Your task to perform on an android device: turn on the 24-hour format for clock Image 0: 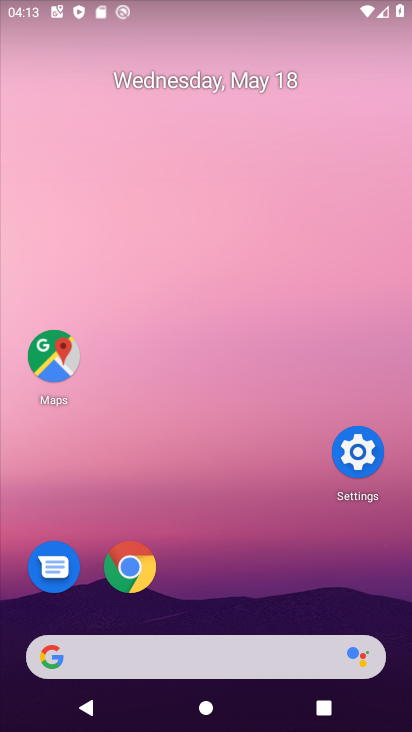
Step 0: drag from (259, 578) to (320, 173)
Your task to perform on an android device: turn on the 24-hour format for clock Image 1: 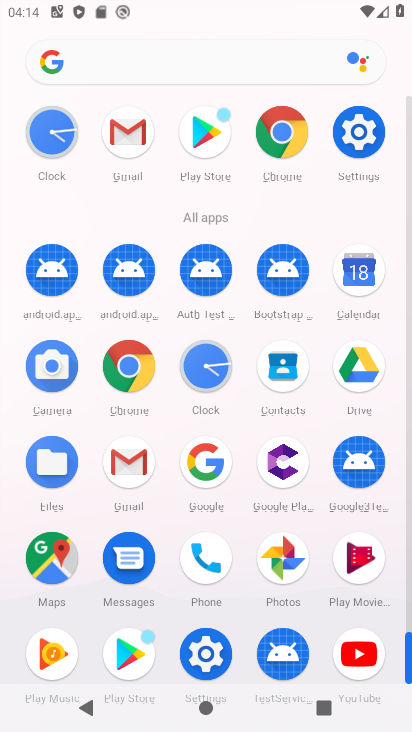
Step 1: click (198, 362)
Your task to perform on an android device: turn on the 24-hour format for clock Image 2: 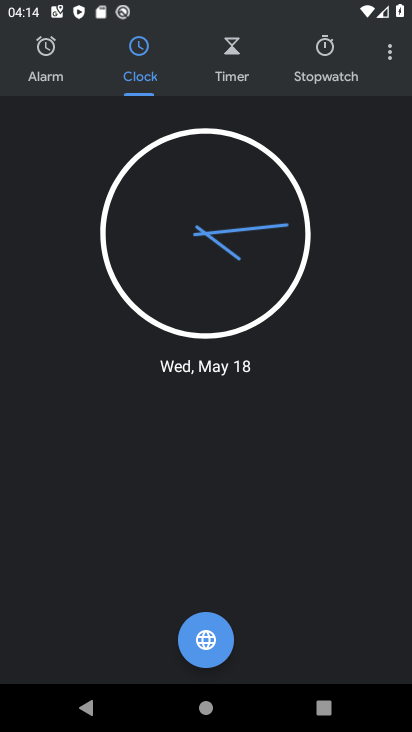
Step 2: click (394, 56)
Your task to perform on an android device: turn on the 24-hour format for clock Image 3: 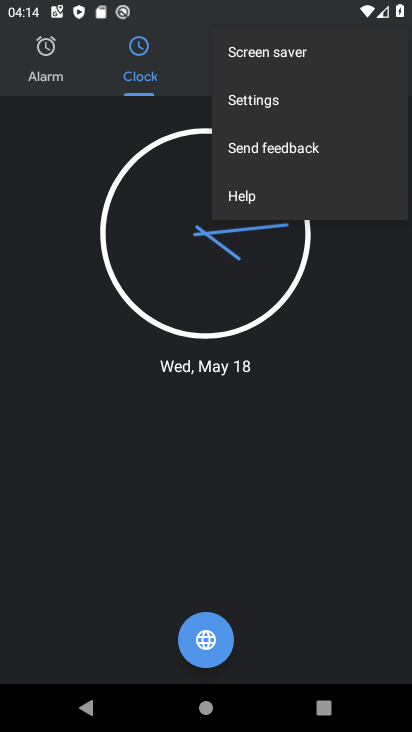
Step 3: click (283, 107)
Your task to perform on an android device: turn on the 24-hour format for clock Image 4: 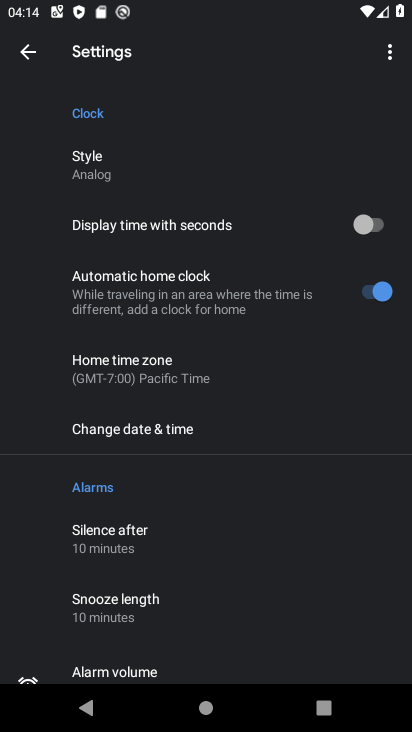
Step 4: click (144, 421)
Your task to perform on an android device: turn on the 24-hour format for clock Image 5: 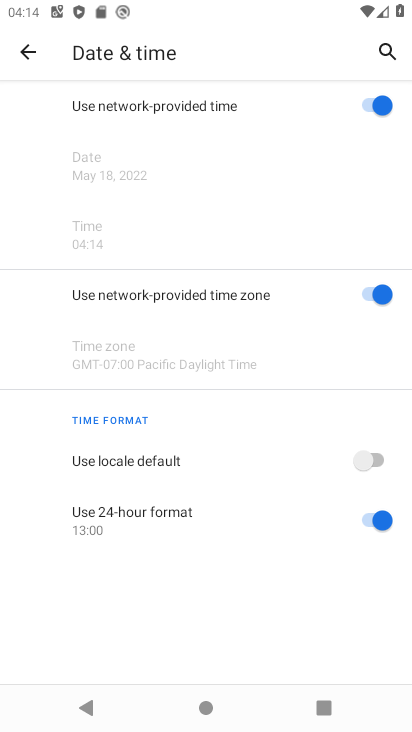
Step 5: task complete